Your task to perform on an android device: show emergency info Image 0: 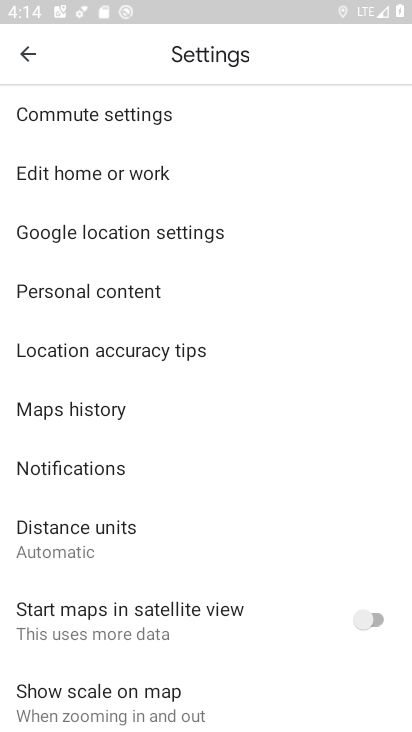
Step 0: press home button
Your task to perform on an android device: show emergency info Image 1: 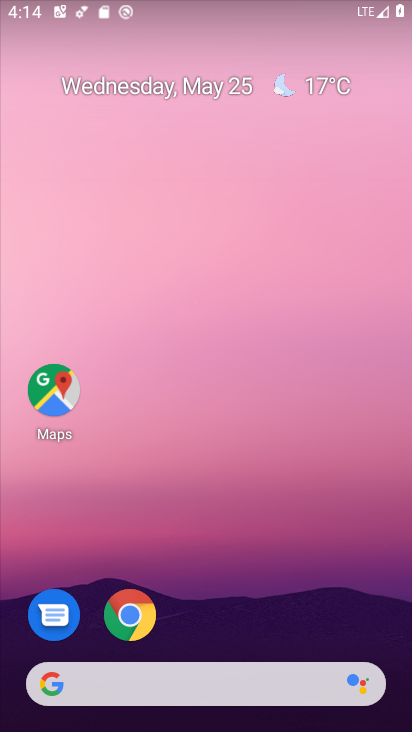
Step 1: drag from (227, 324) to (175, 22)
Your task to perform on an android device: show emergency info Image 2: 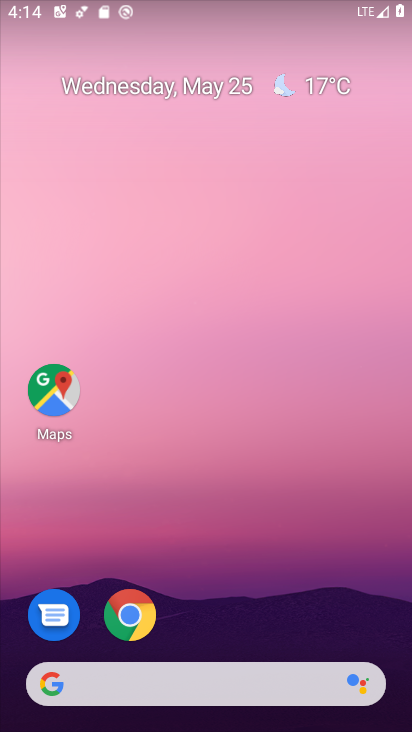
Step 2: drag from (255, 465) to (122, 230)
Your task to perform on an android device: show emergency info Image 3: 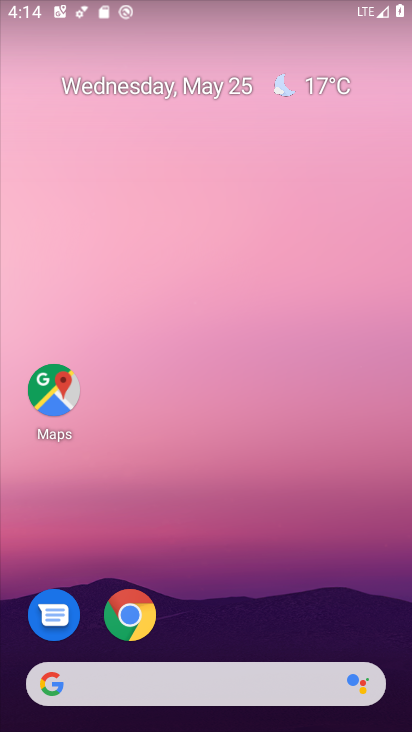
Step 3: drag from (253, 570) to (182, 56)
Your task to perform on an android device: show emergency info Image 4: 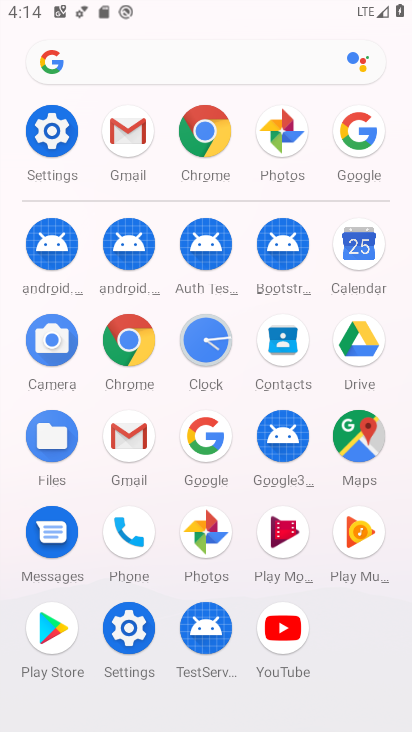
Step 4: click (48, 133)
Your task to perform on an android device: show emergency info Image 5: 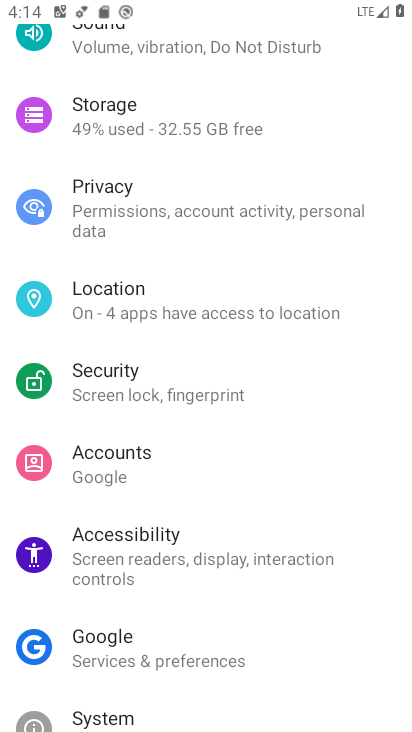
Step 5: drag from (246, 586) to (224, 143)
Your task to perform on an android device: show emergency info Image 6: 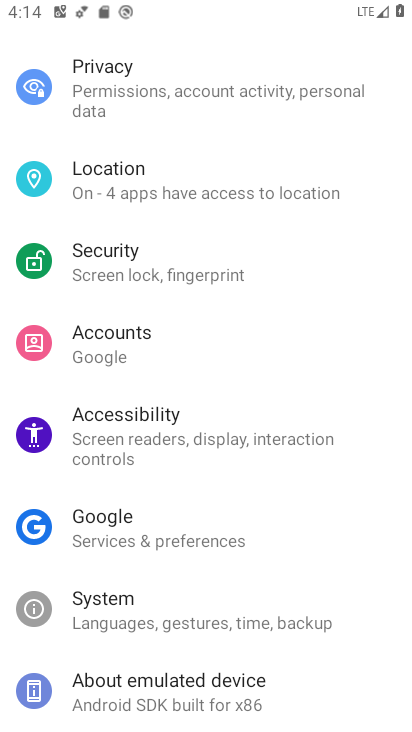
Step 6: click (200, 697)
Your task to perform on an android device: show emergency info Image 7: 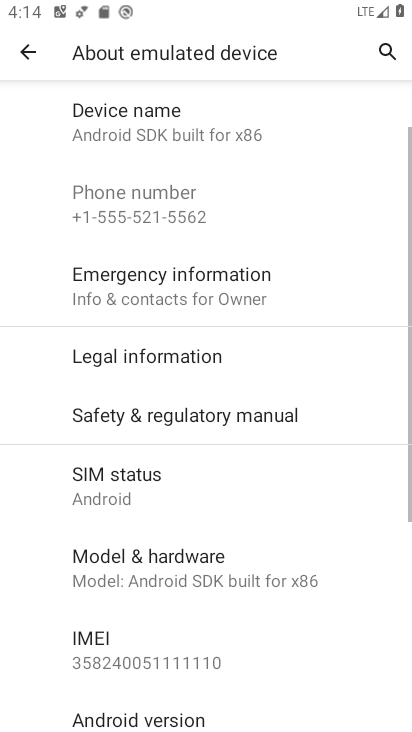
Step 7: click (162, 279)
Your task to perform on an android device: show emergency info Image 8: 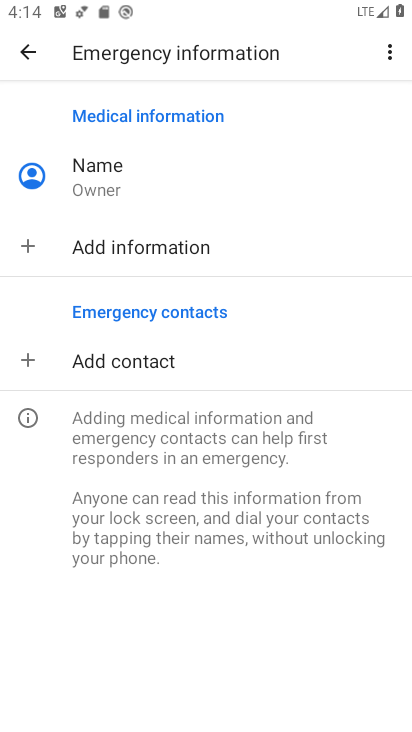
Step 8: task complete